Your task to perform on an android device: Open Google Chrome and open the bookmarks view Image 0: 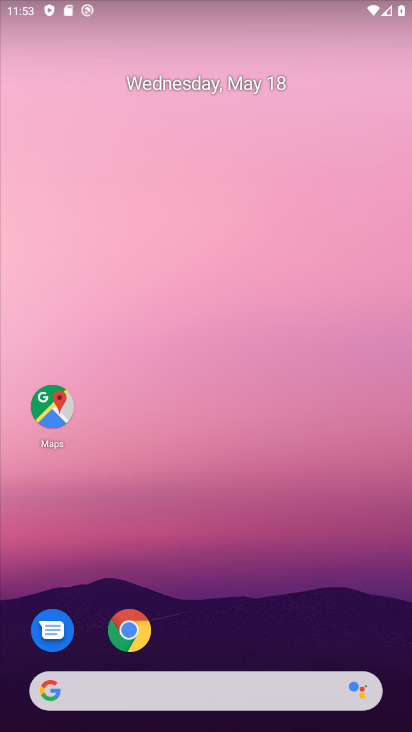
Step 0: click (157, 674)
Your task to perform on an android device: Open Google Chrome and open the bookmarks view Image 1: 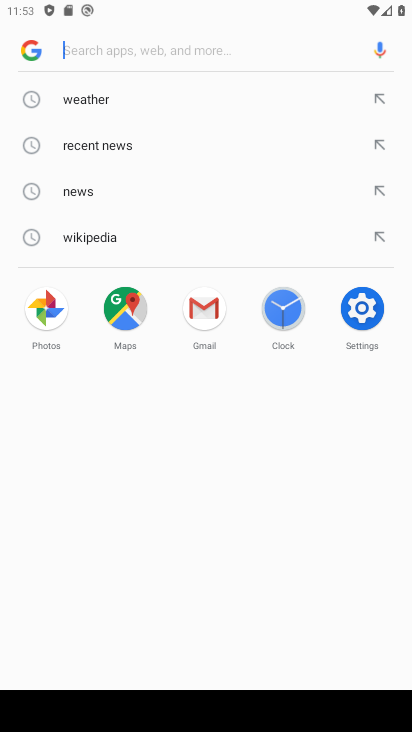
Step 1: press back button
Your task to perform on an android device: Open Google Chrome and open the bookmarks view Image 2: 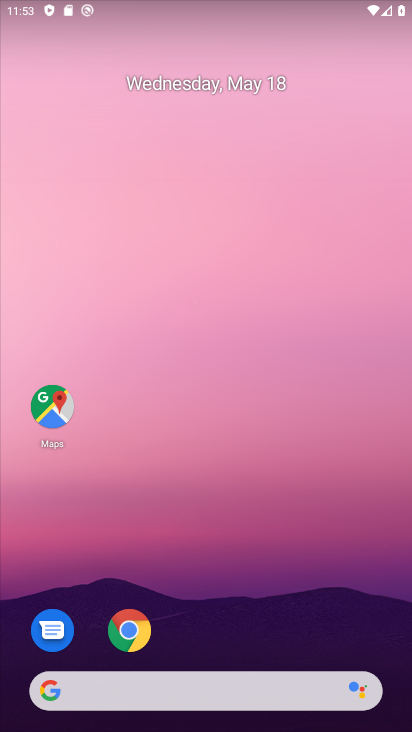
Step 2: click (118, 633)
Your task to perform on an android device: Open Google Chrome and open the bookmarks view Image 3: 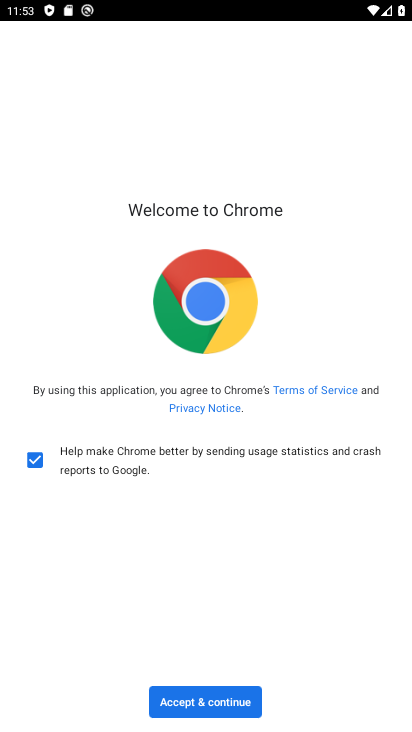
Step 3: click (211, 706)
Your task to perform on an android device: Open Google Chrome and open the bookmarks view Image 4: 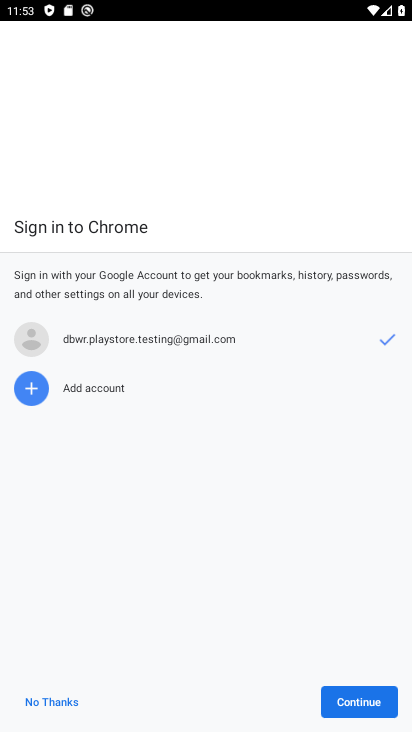
Step 4: click (328, 697)
Your task to perform on an android device: Open Google Chrome and open the bookmarks view Image 5: 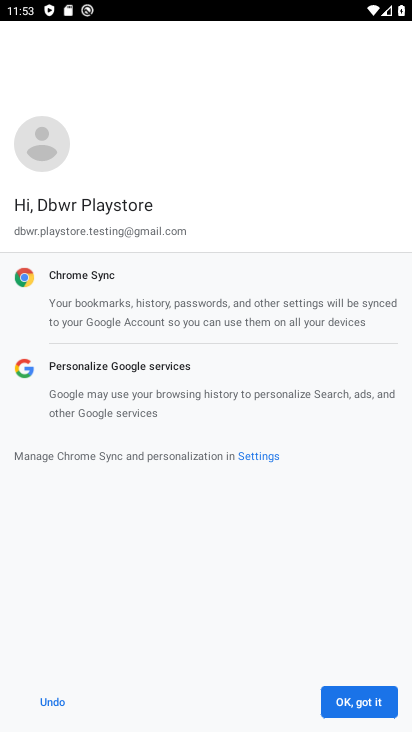
Step 5: click (377, 695)
Your task to perform on an android device: Open Google Chrome and open the bookmarks view Image 6: 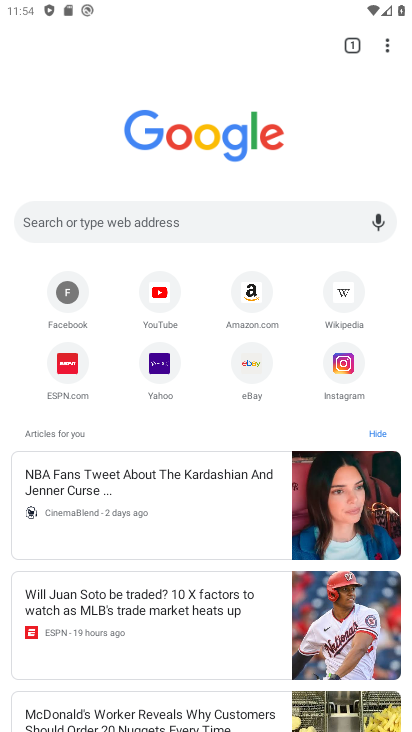
Step 6: click (385, 37)
Your task to perform on an android device: Open Google Chrome and open the bookmarks view Image 7: 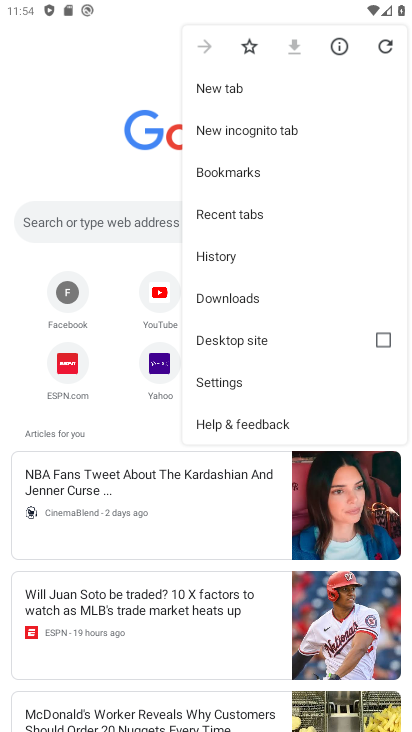
Step 7: click (243, 176)
Your task to perform on an android device: Open Google Chrome and open the bookmarks view Image 8: 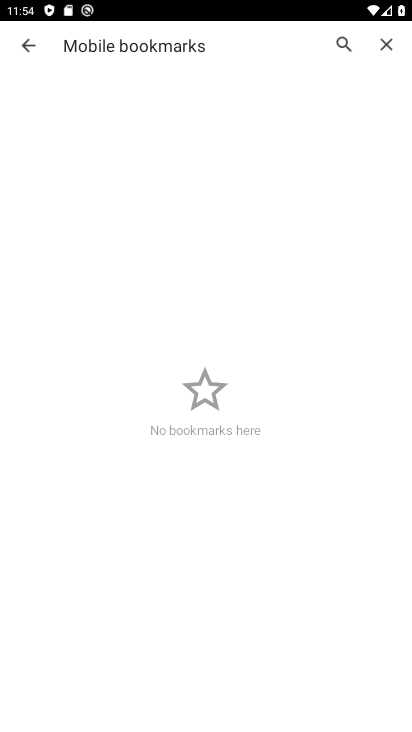
Step 8: task complete